Your task to perform on an android device: turn smart compose on in the gmail app Image 0: 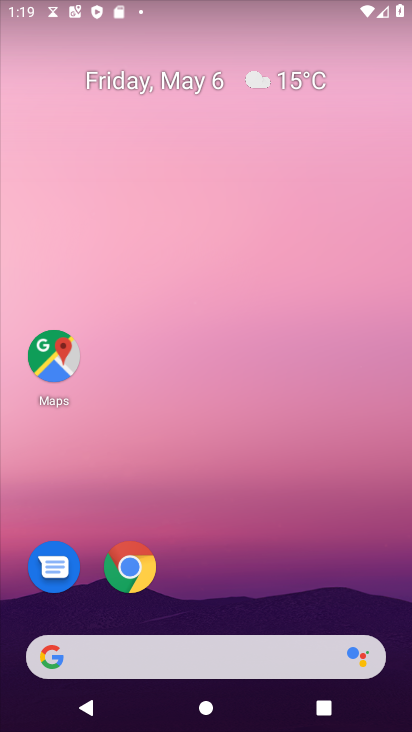
Step 0: drag from (285, 525) to (228, 153)
Your task to perform on an android device: turn smart compose on in the gmail app Image 1: 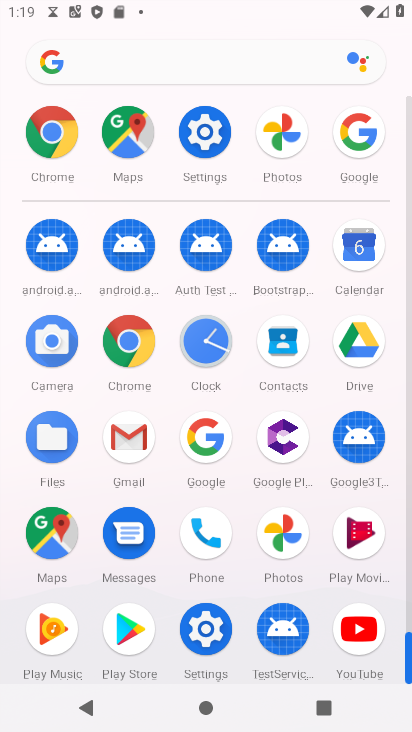
Step 1: click (124, 461)
Your task to perform on an android device: turn smart compose on in the gmail app Image 2: 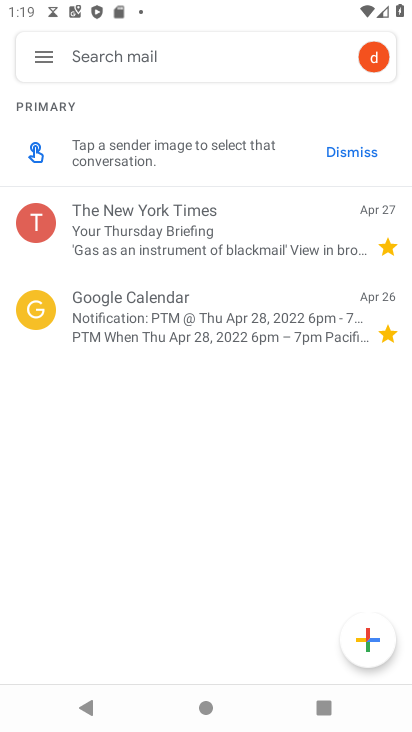
Step 2: click (42, 65)
Your task to perform on an android device: turn smart compose on in the gmail app Image 3: 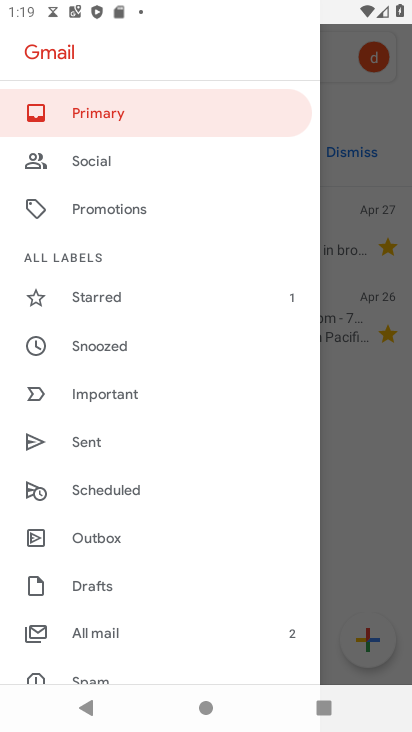
Step 3: drag from (138, 634) to (222, 255)
Your task to perform on an android device: turn smart compose on in the gmail app Image 4: 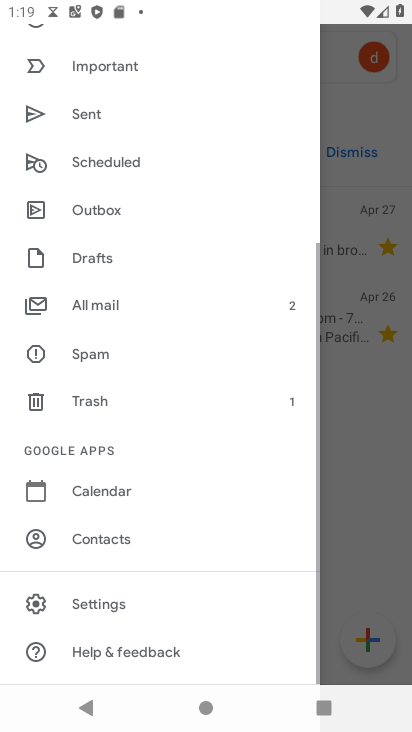
Step 4: click (99, 595)
Your task to perform on an android device: turn smart compose on in the gmail app Image 5: 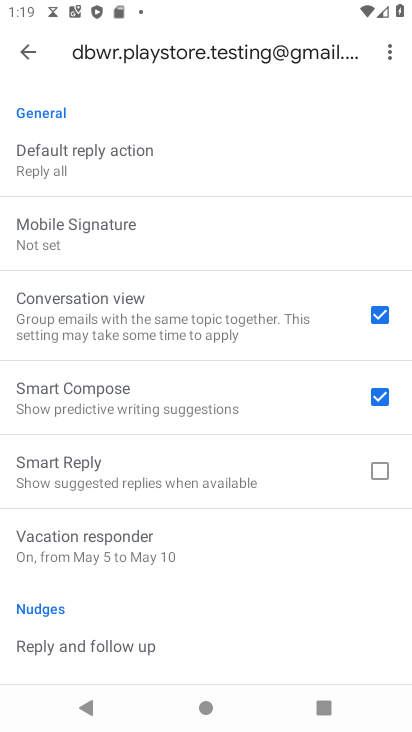
Step 5: task complete